Your task to perform on an android device: turn off data saver in the chrome app Image 0: 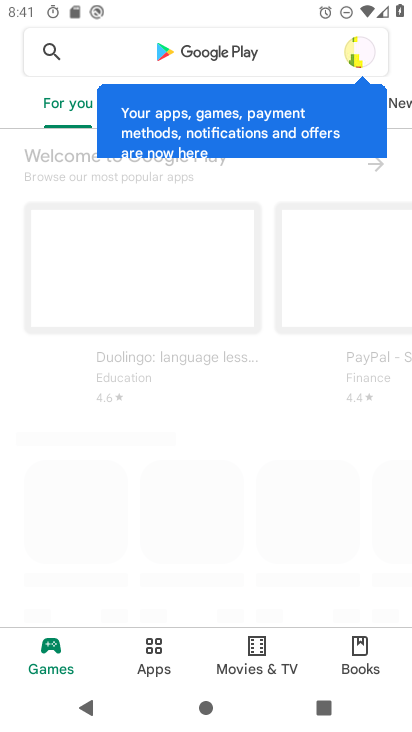
Step 0: press home button
Your task to perform on an android device: turn off data saver in the chrome app Image 1: 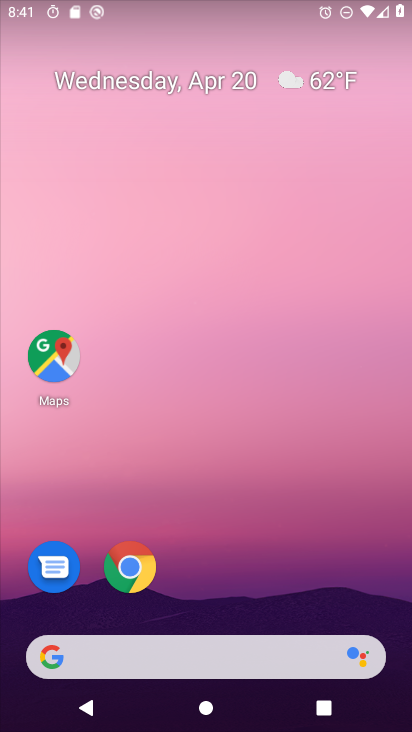
Step 1: click (126, 573)
Your task to perform on an android device: turn off data saver in the chrome app Image 2: 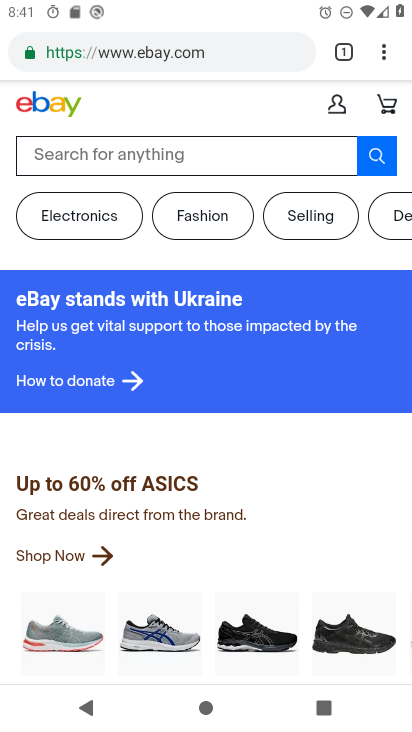
Step 2: click (386, 49)
Your task to perform on an android device: turn off data saver in the chrome app Image 3: 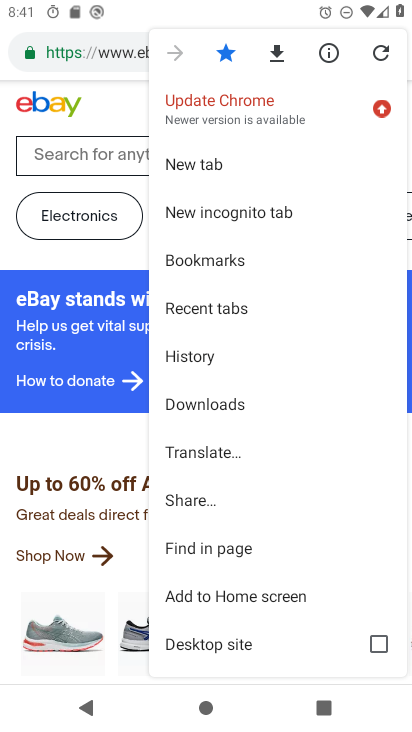
Step 3: drag from (313, 624) to (313, 359)
Your task to perform on an android device: turn off data saver in the chrome app Image 4: 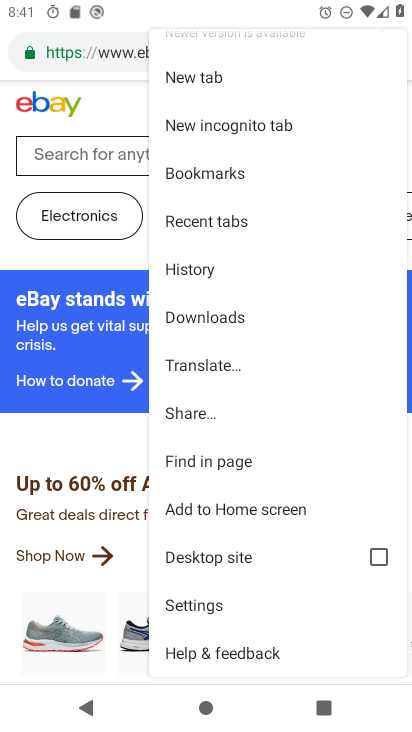
Step 4: click (191, 612)
Your task to perform on an android device: turn off data saver in the chrome app Image 5: 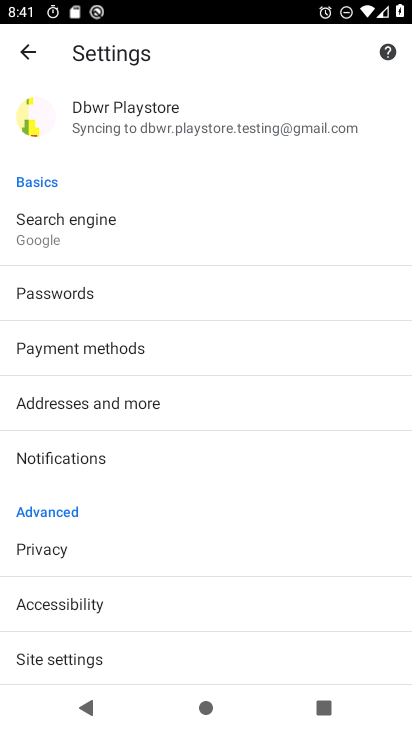
Step 5: drag from (171, 615) to (188, 320)
Your task to perform on an android device: turn off data saver in the chrome app Image 6: 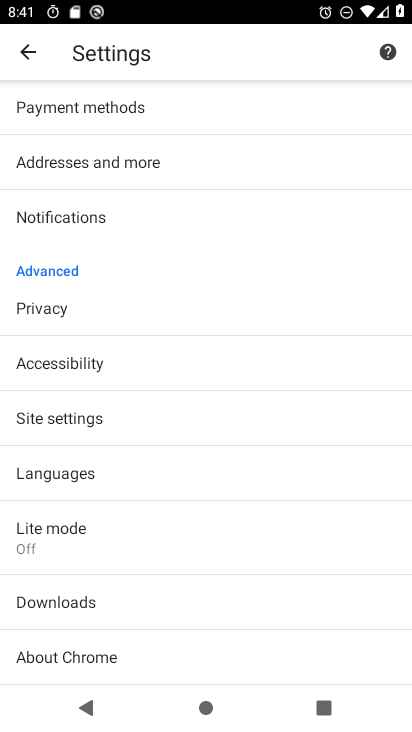
Step 6: click (29, 534)
Your task to perform on an android device: turn off data saver in the chrome app Image 7: 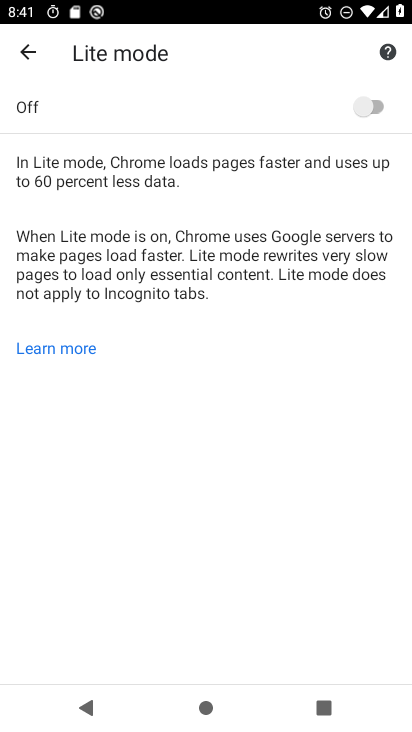
Step 7: task complete